Your task to perform on an android device: Show me recent news Image 0: 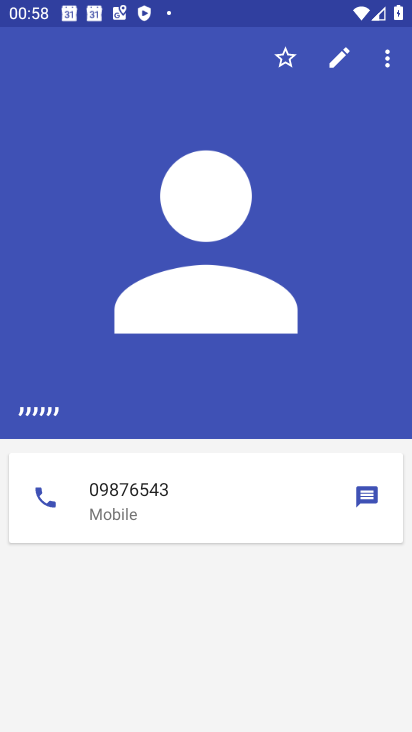
Step 0: press home button
Your task to perform on an android device: Show me recent news Image 1: 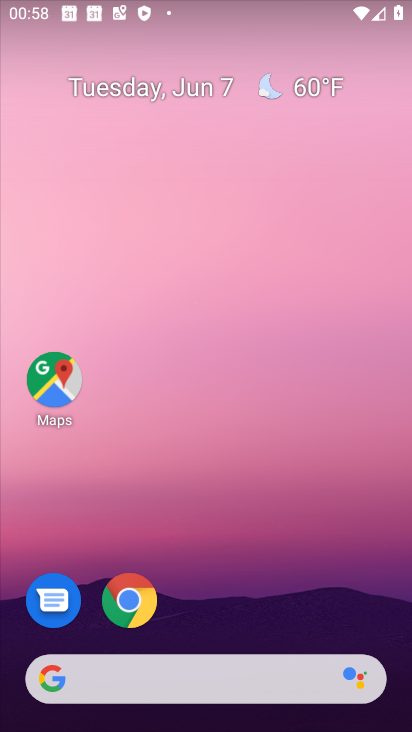
Step 1: task complete